Your task to perform on an android device: Go to accessibility settings Image 0: 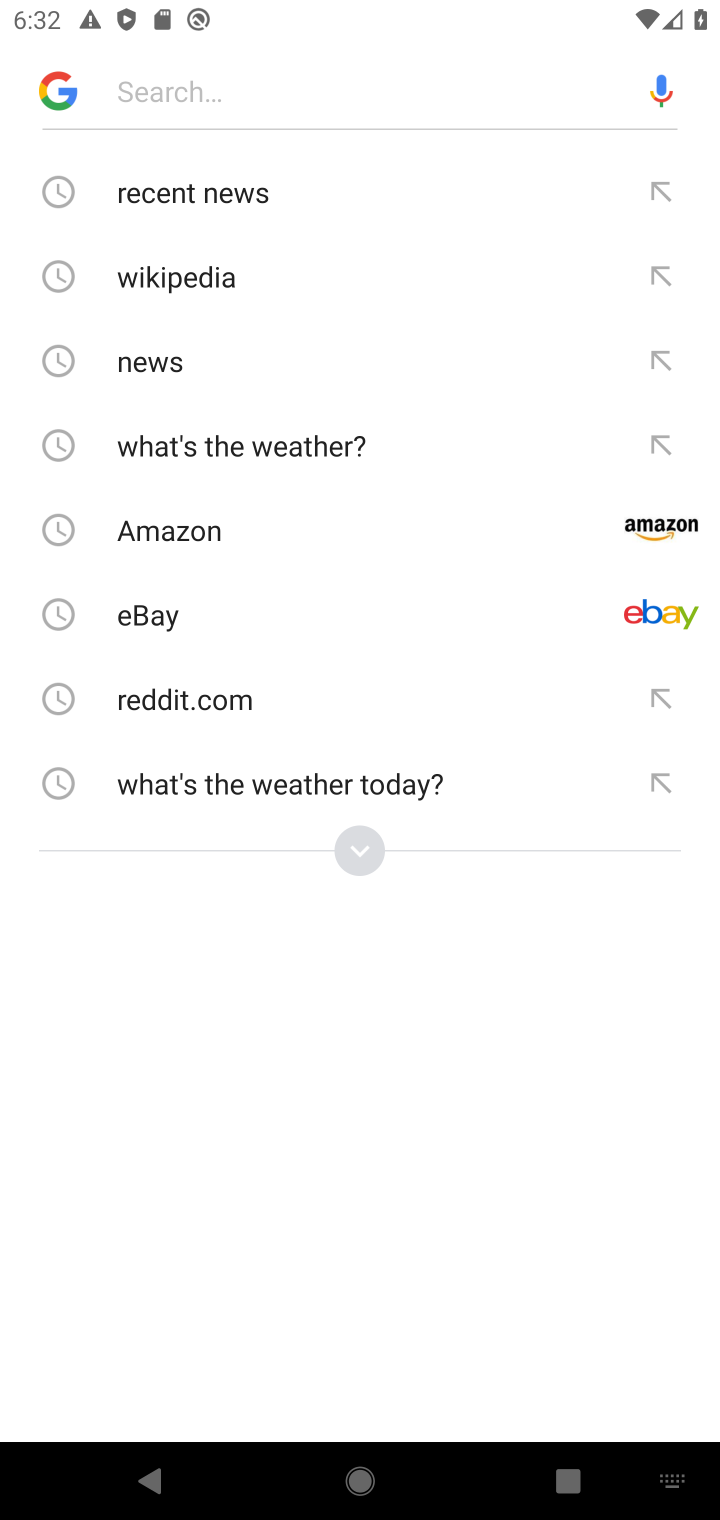
Step 0: press home button
Your task to perform on an android device: Go to accessibility settings Image 1: 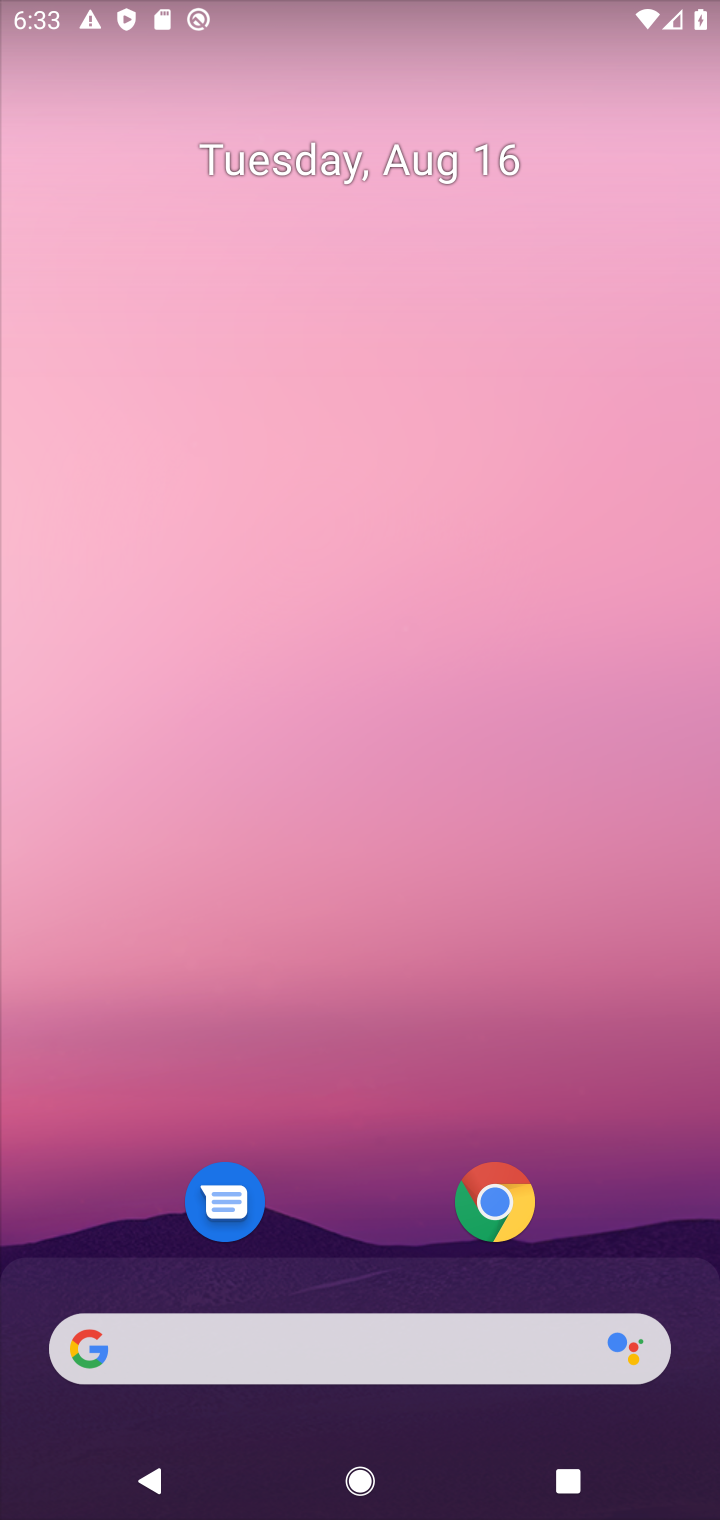
Step 1: drag from (614, 1174) to (476, 2)
Your task to perform on an android device: Go to accessibility settings Image 2: 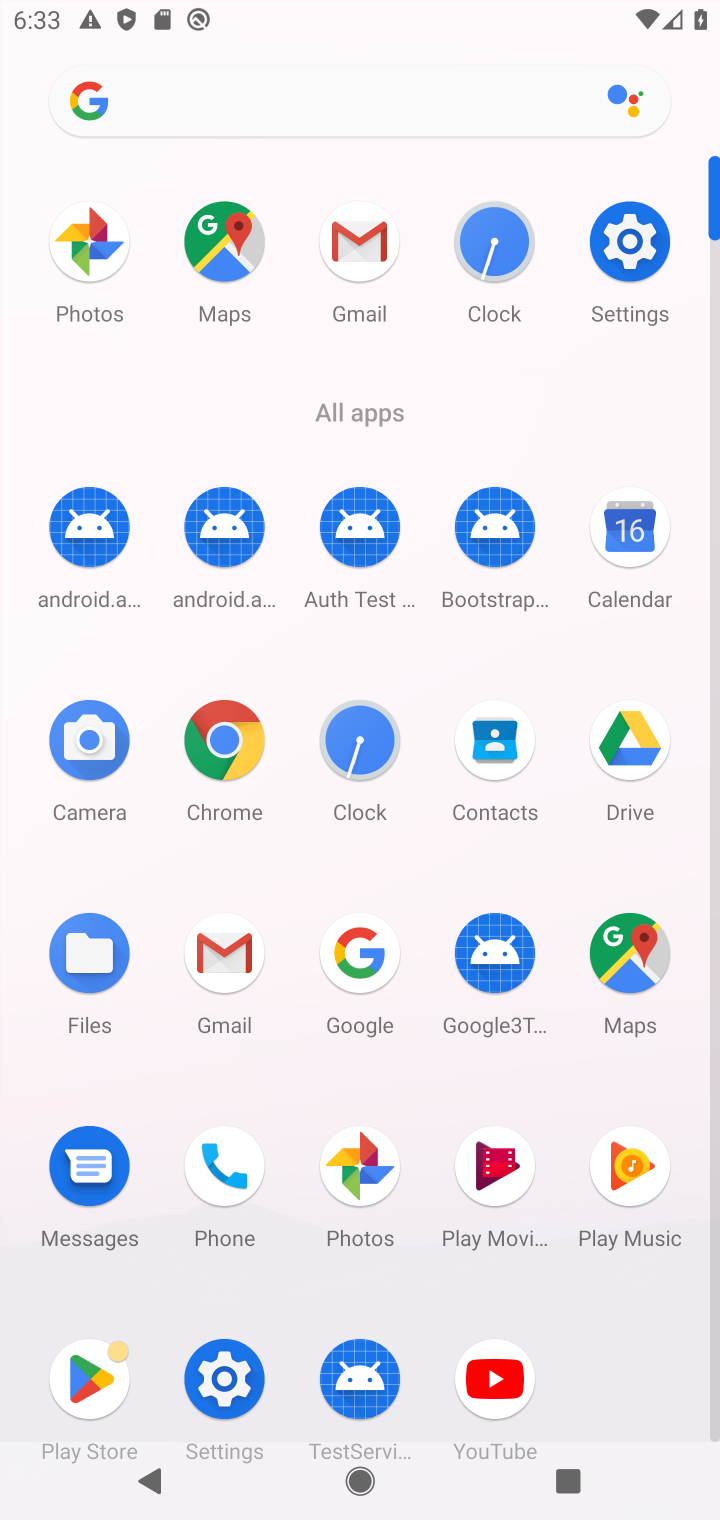
Step 2: click (231, 1429)
Your task to perform on an android device: Go to accessibility settings Image 3: 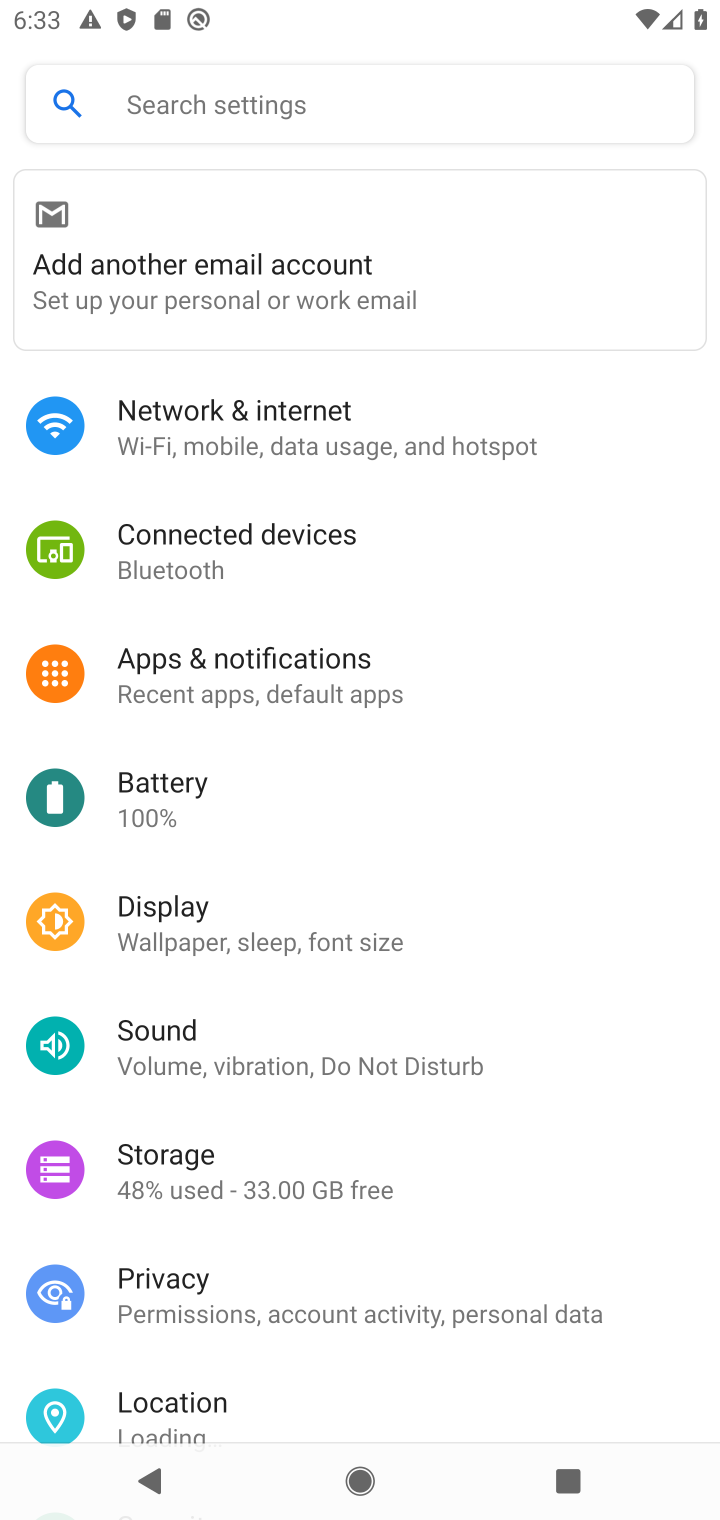
Step 3: drag from (254, 1360) to (387, 329)
Your task to perform on an android device: Go to accessibility settings Image 4: 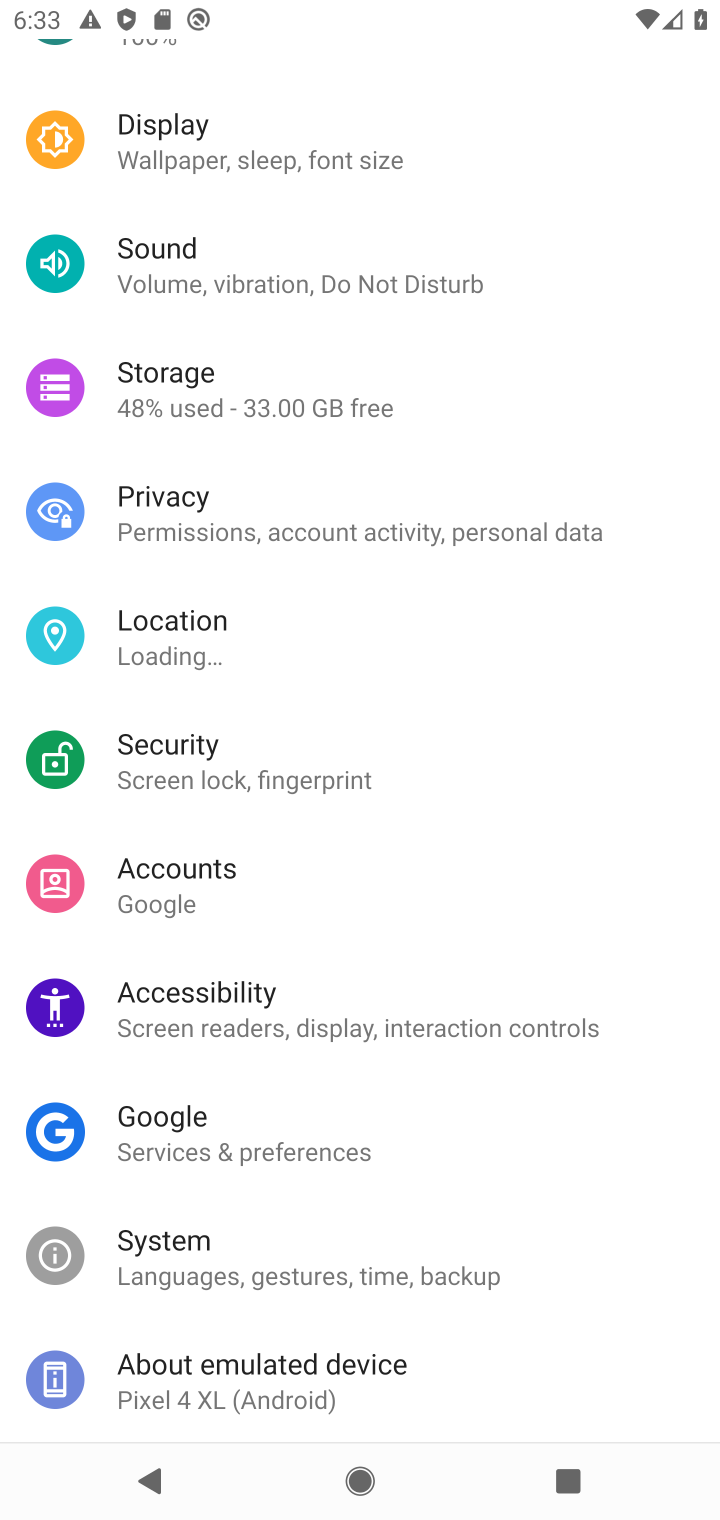
Step 4: click (227, 1016)
Your task to perform on an android device: Go to accessibility settings Image 5: 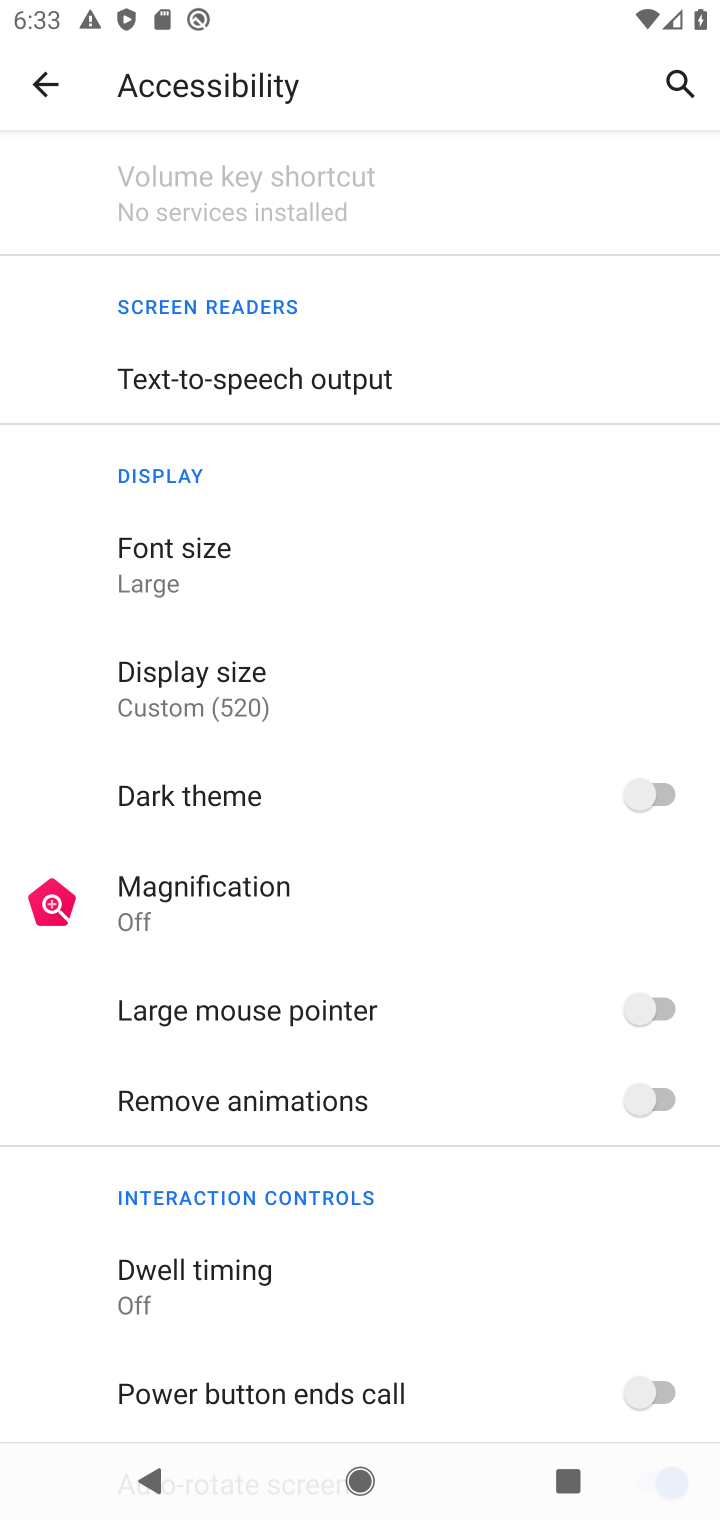
Step 5: task complete